Your task to perform on an android device: check android version Image 0: 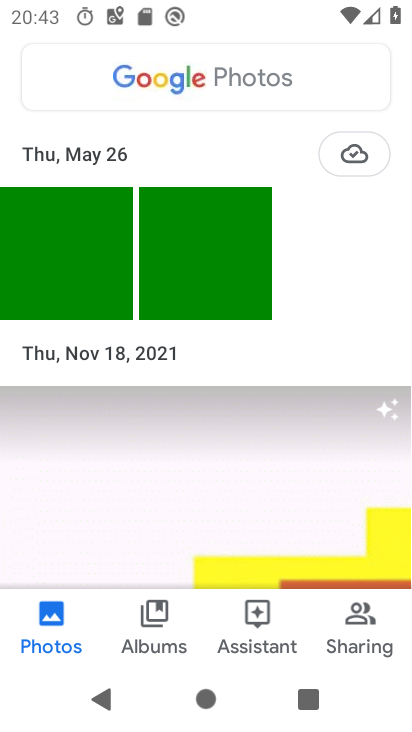
Step 0: press home button
Your task to perform on an android device: check android version Image 1: 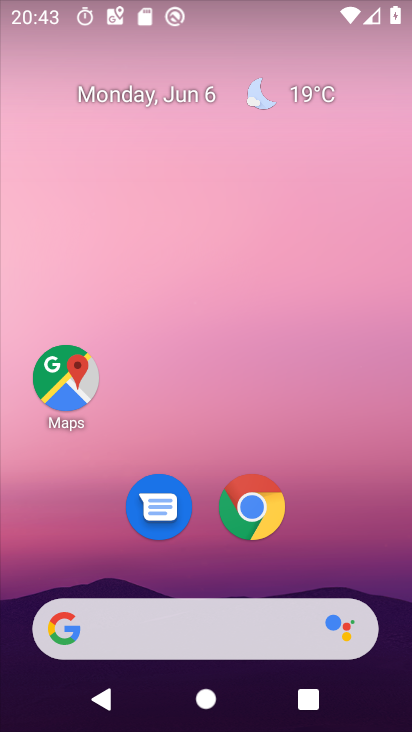
Step 1: drag from (349, 567) to (299, 45)
Your task to perform on an android device: check android version Image 2: 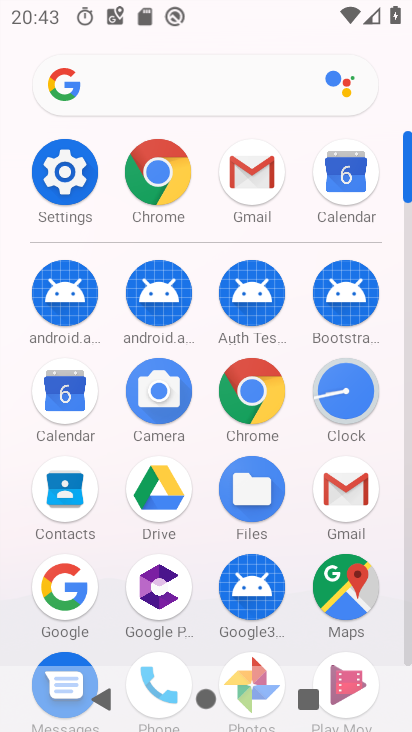
Step 2: click (46, 190)
Your task to perform on an android device: check android version Image 3: 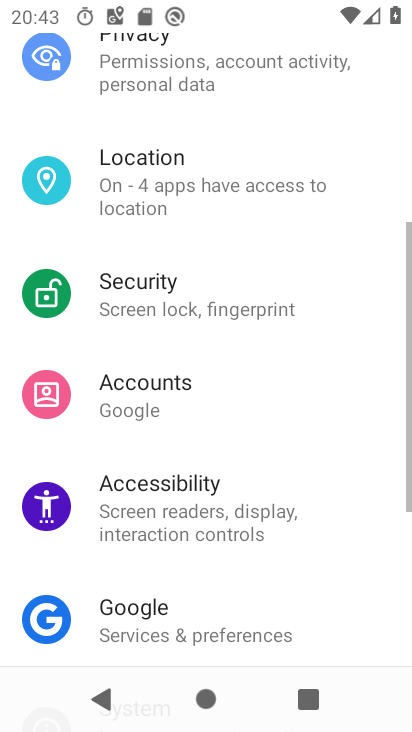
Step 3: drag from (194, 599) to (192, 90)
Your task to perform on an android device: check android version Image 4: 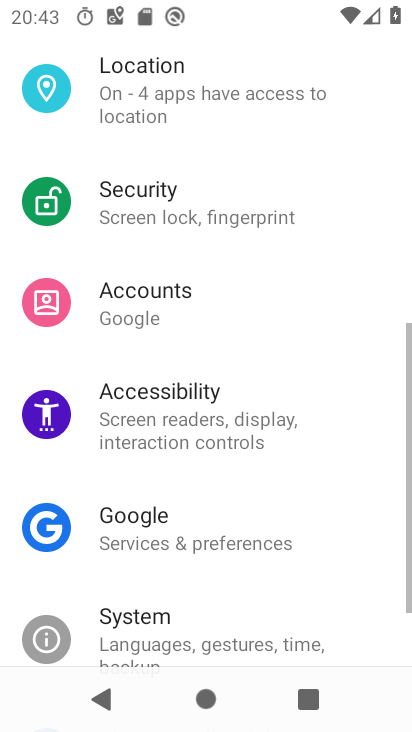
Step 4: drag from (161, 477) to (180, 132)
Your task to perform on an android device: check android version Image 5: 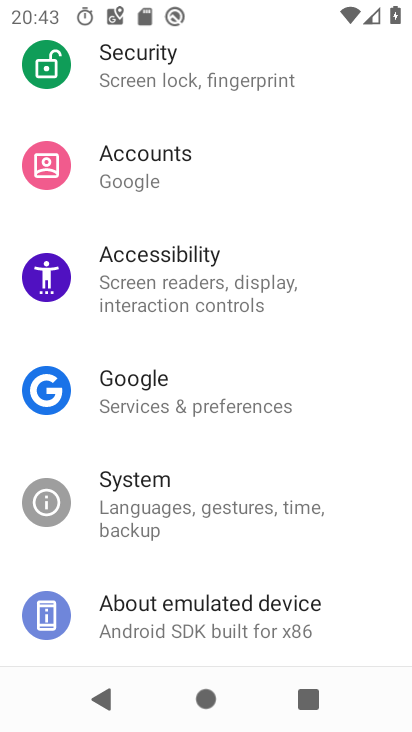
Step 5: click (137, 586)
Your task to perform on an android device: check android version Image 6: 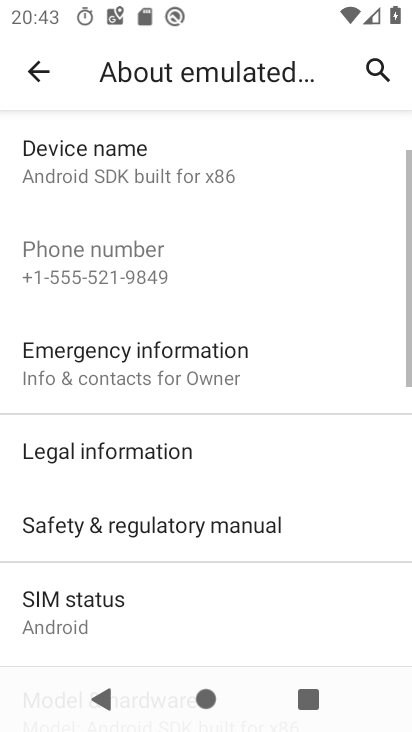
Step 6: drag from (184, 632) to (183, 112)
Your task to perform on an android device: check android version Image 7: 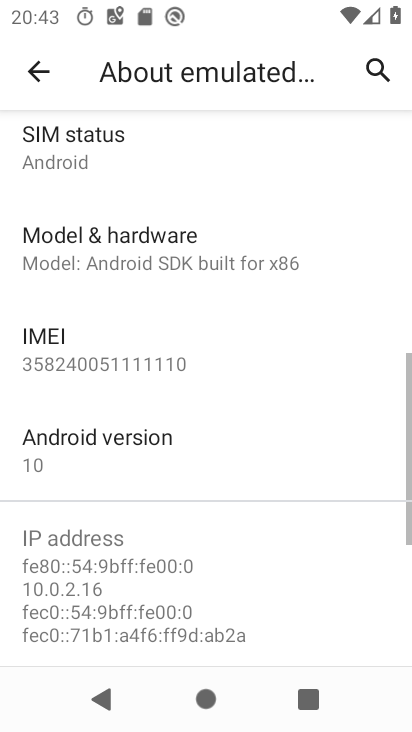
Step 7: click (150, 484)
Your task to perform on an android device: check android version Image 8: 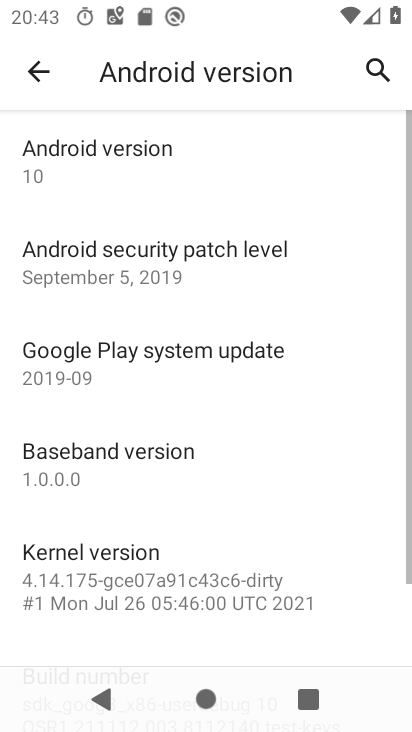
Step 8: click (147, 148)
Your task to perform on an android device: check android version Image 9: 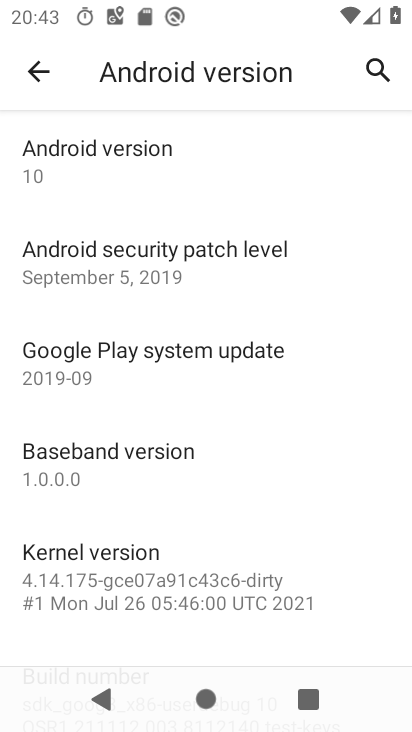
Step 9: task complete